Your task to perform on an android device: turn on data saver in the chrome app Image 0: 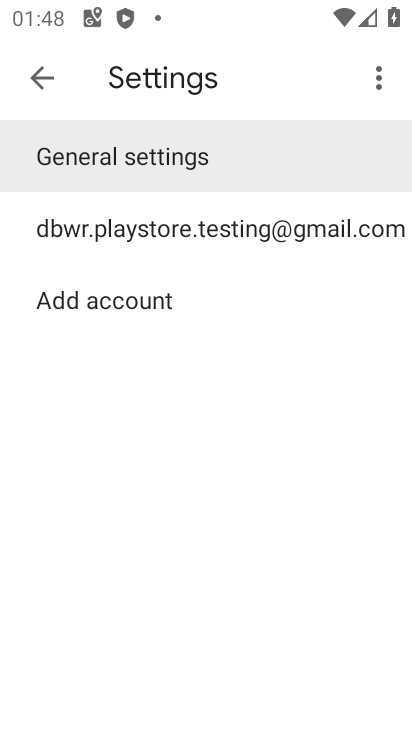
Step 0: press home button
Your task to perform on an android device: turn on data saver in the chrome app Image 1: 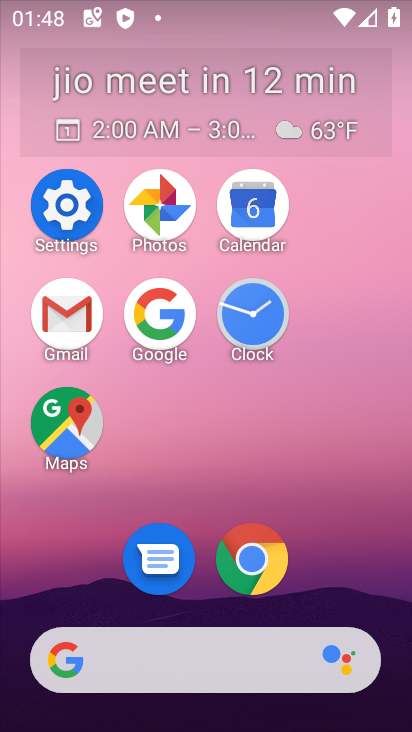
Step 1: click (240, 546)
Your task to perform on an android device: turn on data saver in the chrome app Image 2: 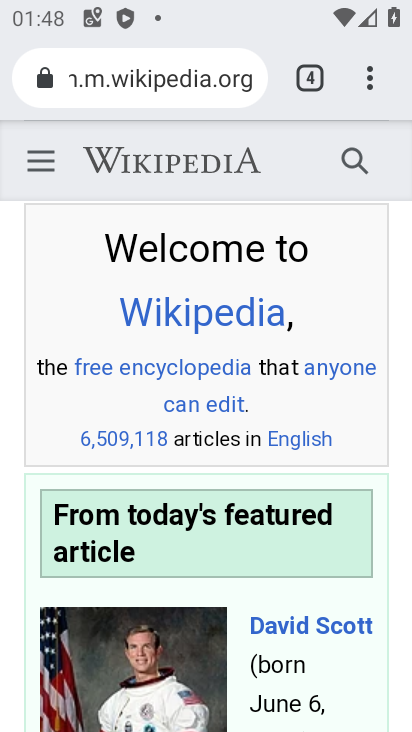
Step 2: click (380, 94)
Your task to perform on an android device: turn on data saver in the chrome app Image 3: 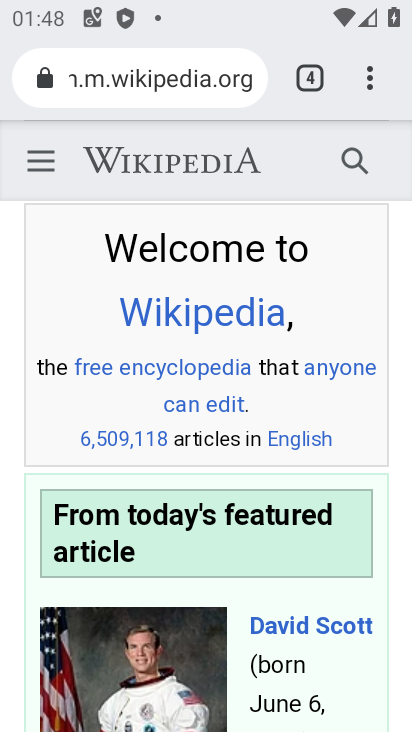
Step 3: click (369, 79)
Your task to perform on an android device: turn on data saver in the chrome app Image 4: 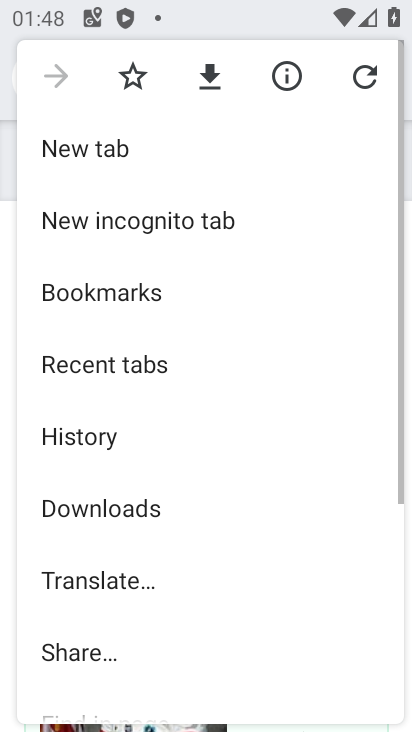
Step 4: drag from (227, 566) to (246, 182)
Your task to perform on an android device: turn on data saver in the chrome app Image 5: 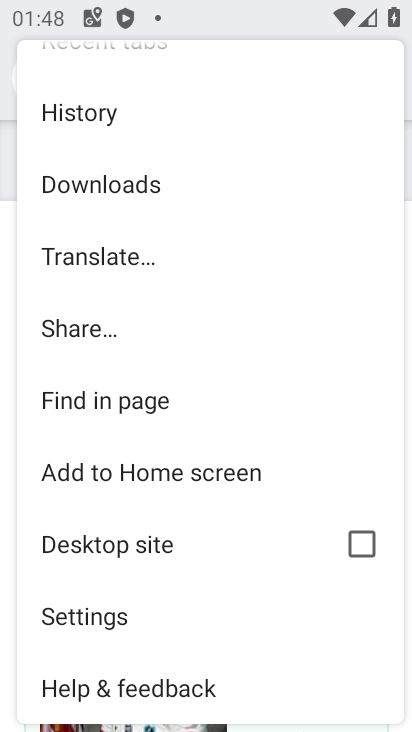
Step 5: click (119, 629)
Your task to perform on an android device: turn on data saver in the chrome app Image 6: 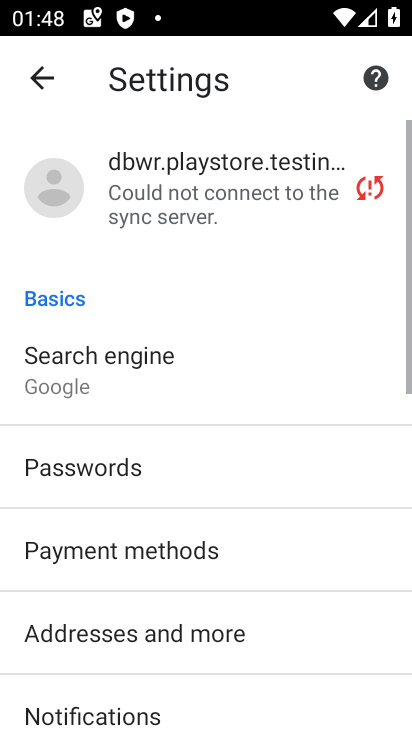
Step 6: drag from (127, 605) to (198, 274)
Your task to perform on an android device: turn on data saver in the chrome app Image 7: 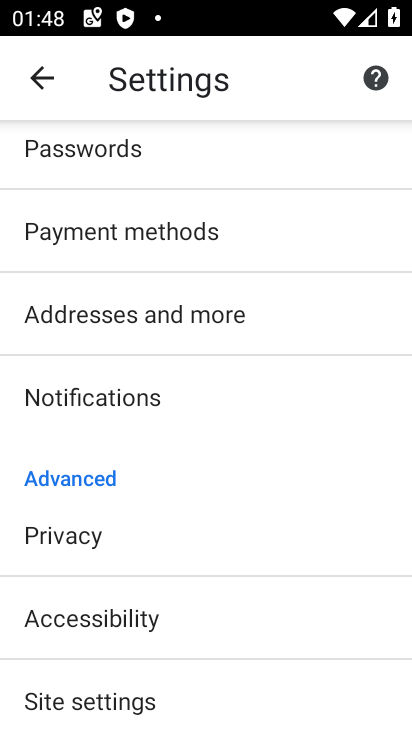
Step 7: drag from (154, 540) to (229, 235)
Your task to perform on an android device: turn on data saver in the chrome app Image 8: 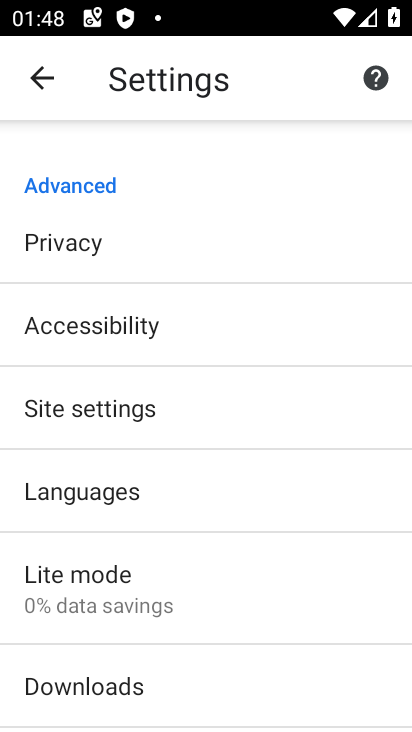
Step 8: click (246, 594)
Your task to perform on an android device: turn on data saver in the chrome app Image 9: 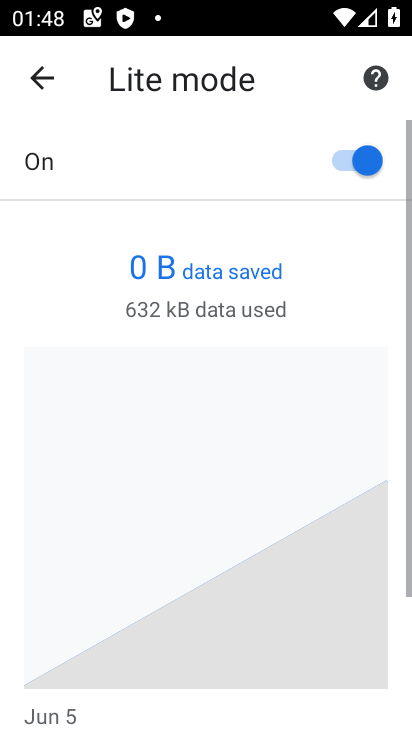
Step 9: task complete